Your task to perform on an android device: Go to display settings Image 0: 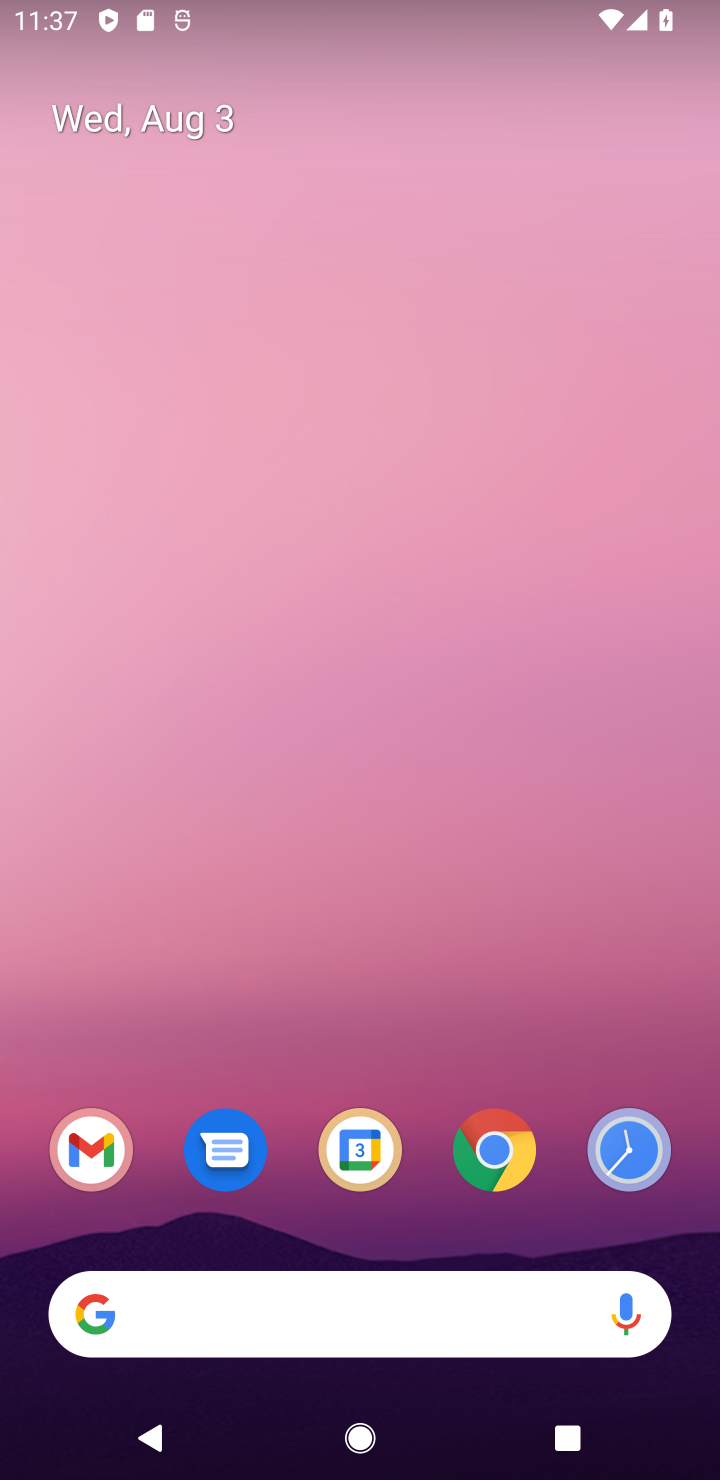
Step 0: press home button
Your task to perform on an android device: Go to display settings Image 1: 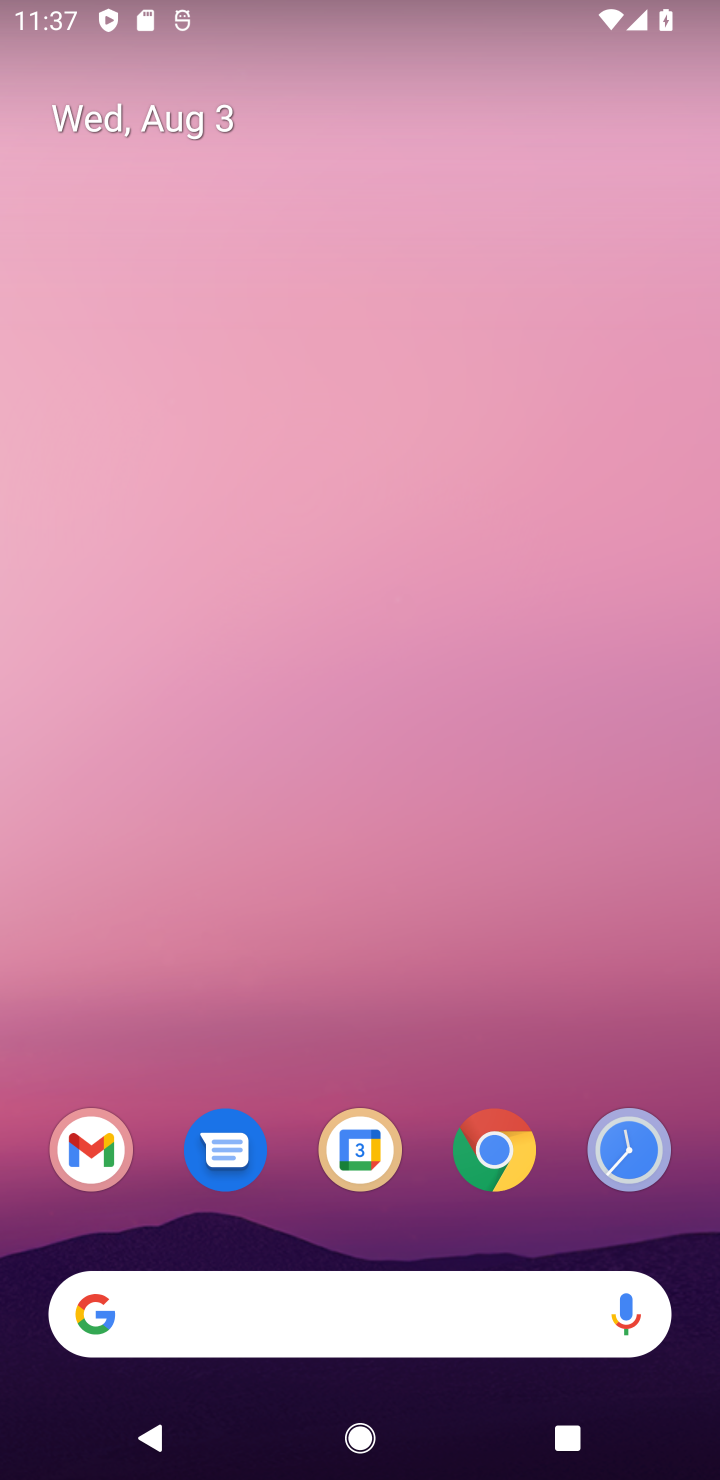
Step 1: drag from (434, 1089) to (419, 251)
Your task to perform on an android device: Go to display settings Image 2: 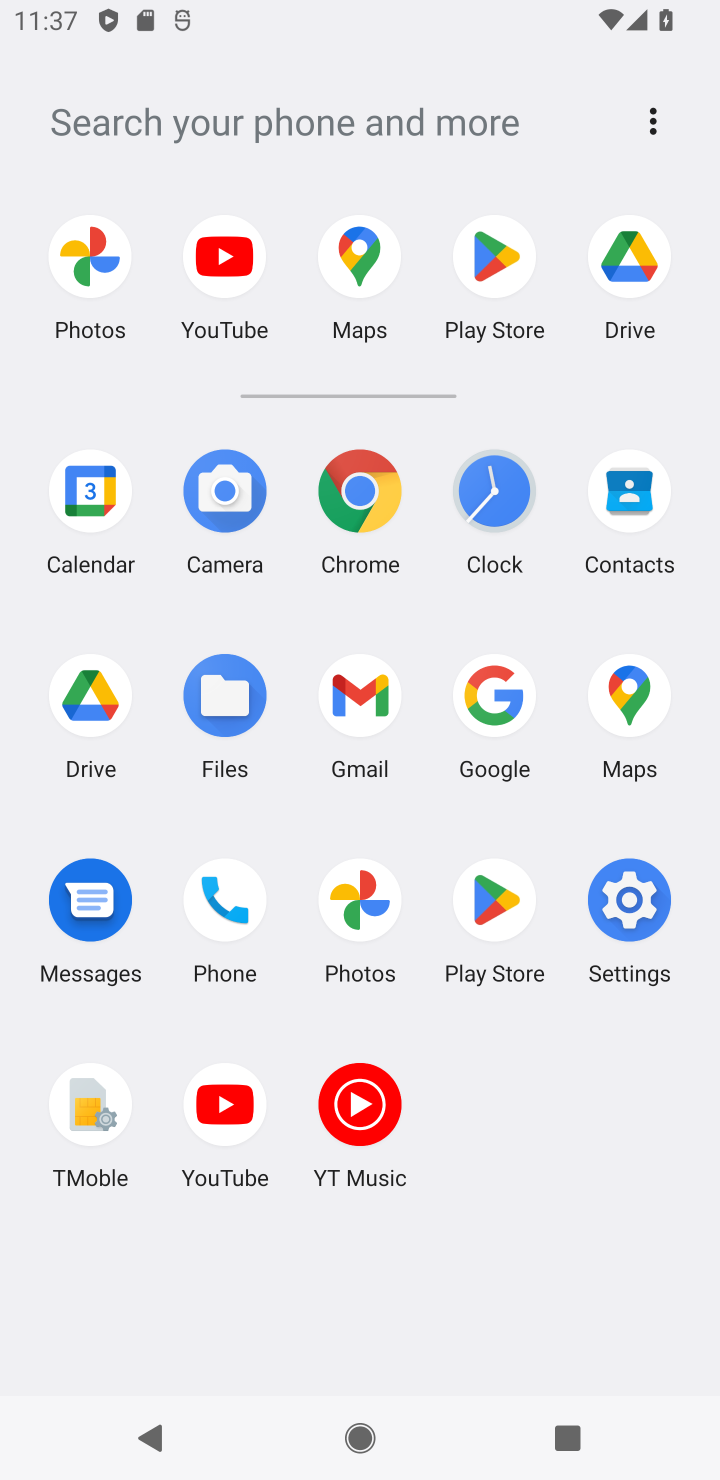
Step 2: click (636, 908)
Your task to perform on an android device: Go to display settings Image 3: 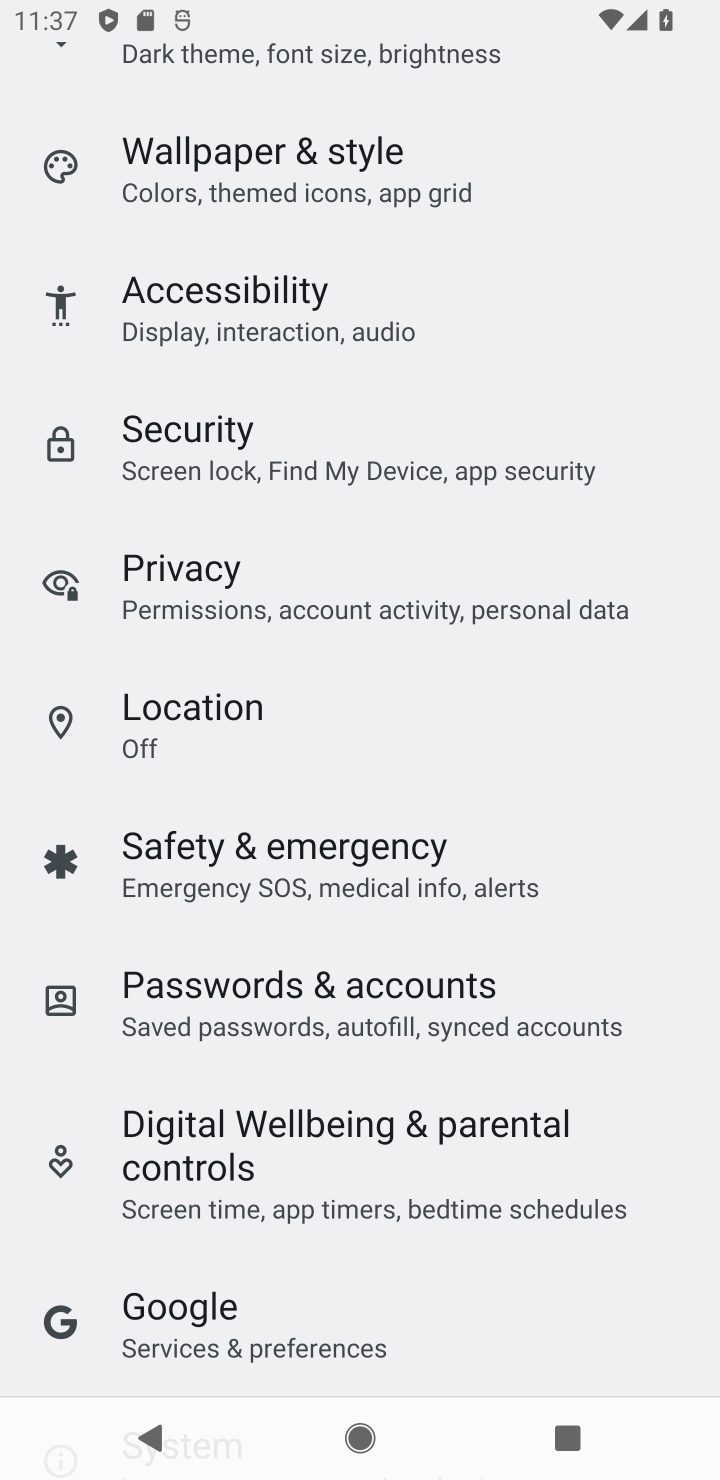
Step 3: drag from (643, 1315) to (650, 1126)
Your task to perform on an android device: Go to display settings Image 4: 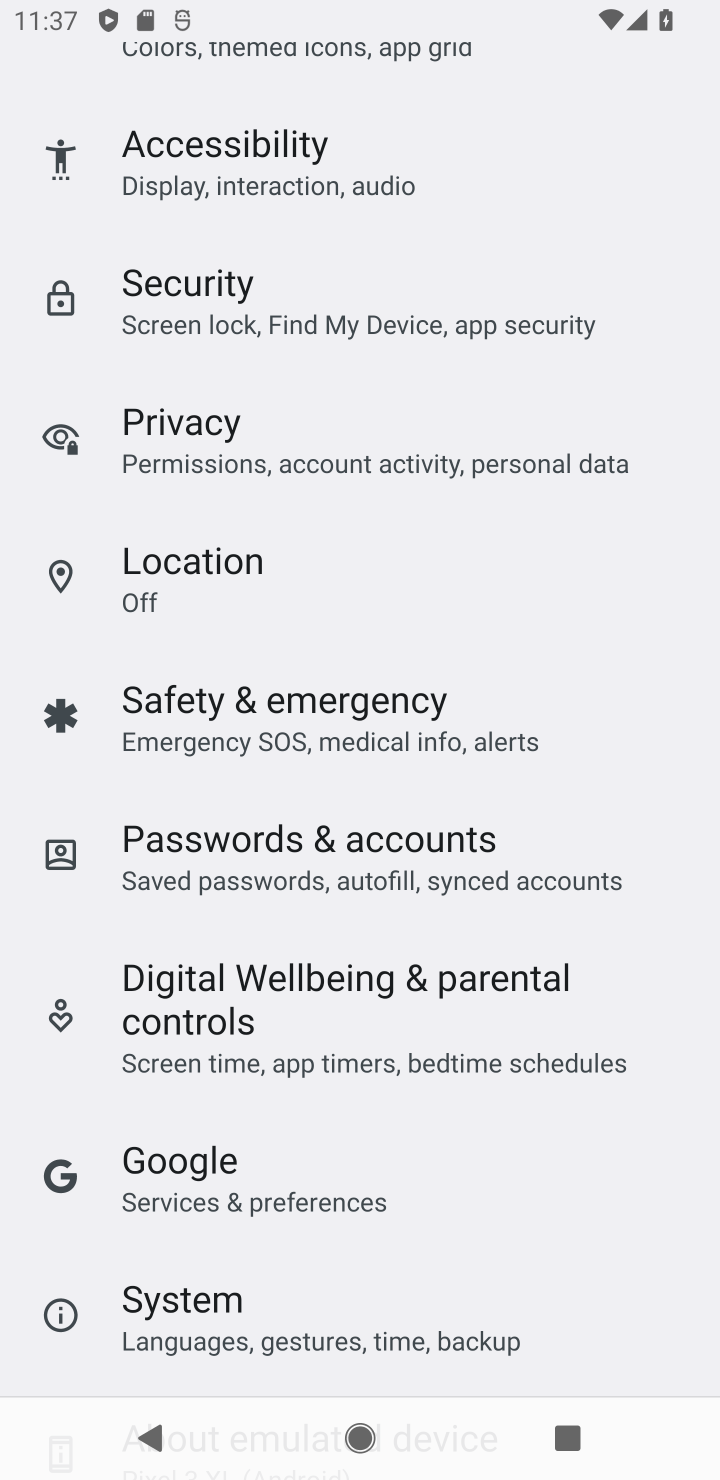
Step 4: drag from (633, 1297) to (629, 1078)
Your task to perform on an android device: Go to display settings Image 5: 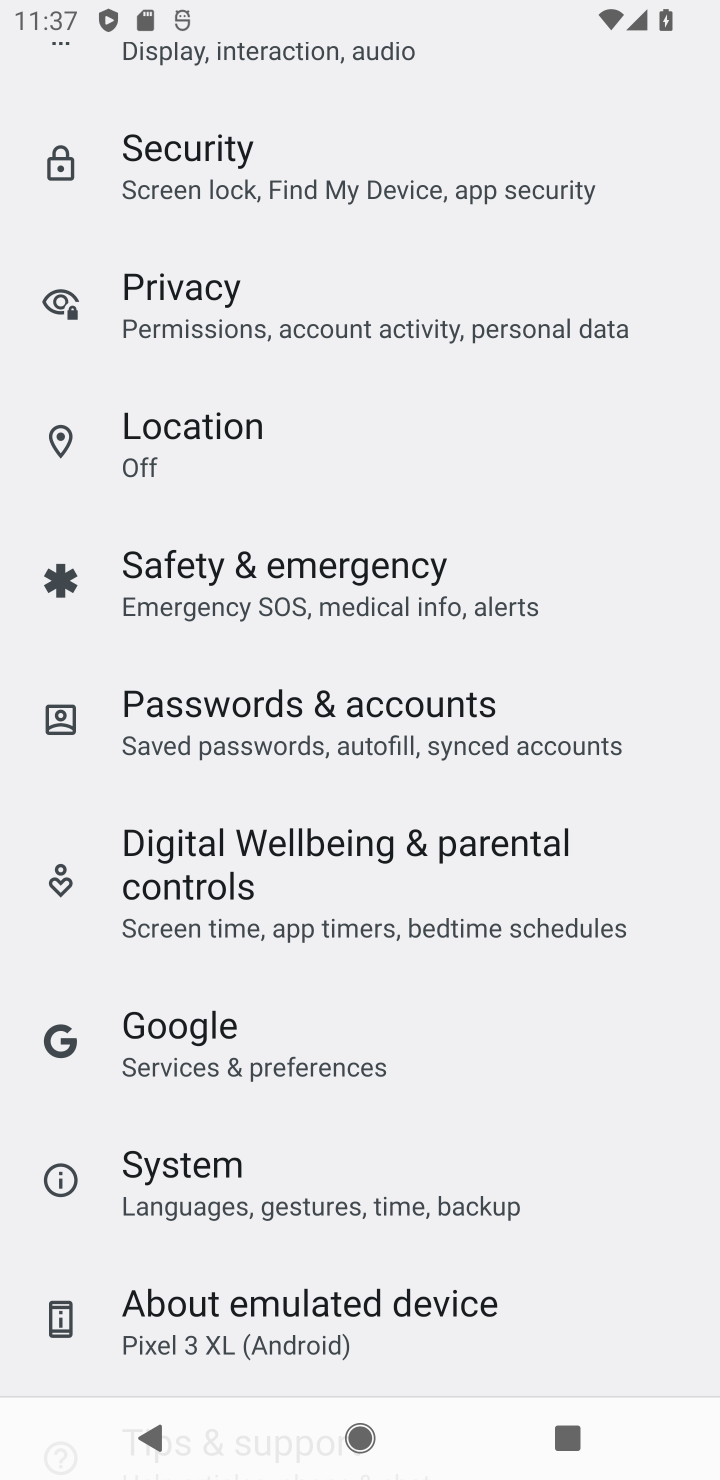
Step 5: drag from (602, 1296) to (603, 993)
Your task to perform on an android device: Go to display settings Image 6: 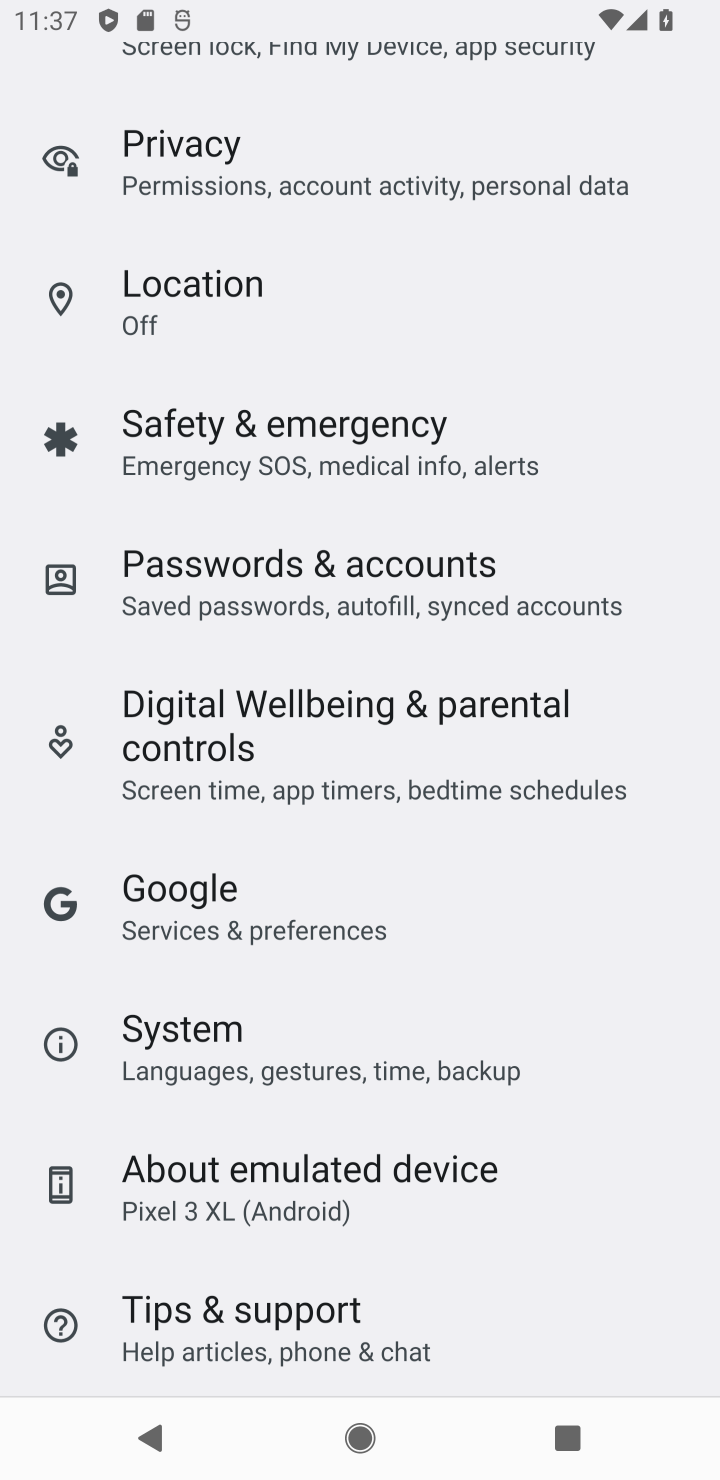
Step 6: drag from (627, 851) to (629, 1015)
Your task to perform on an android device: Go to display settings Image 7: 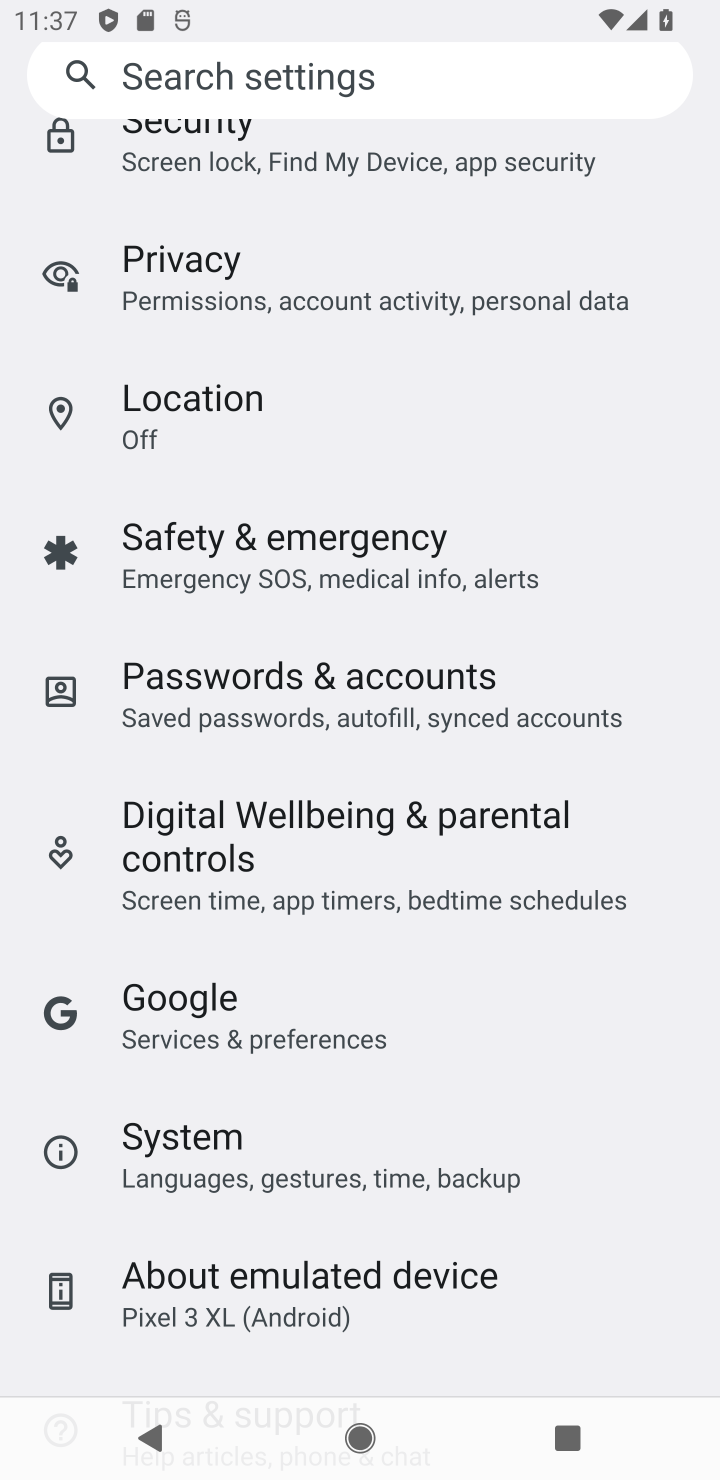
Step 7: drag from (646, 775) to (648, 952)
Your task to perform on an android device: Go to display settings Image 8: 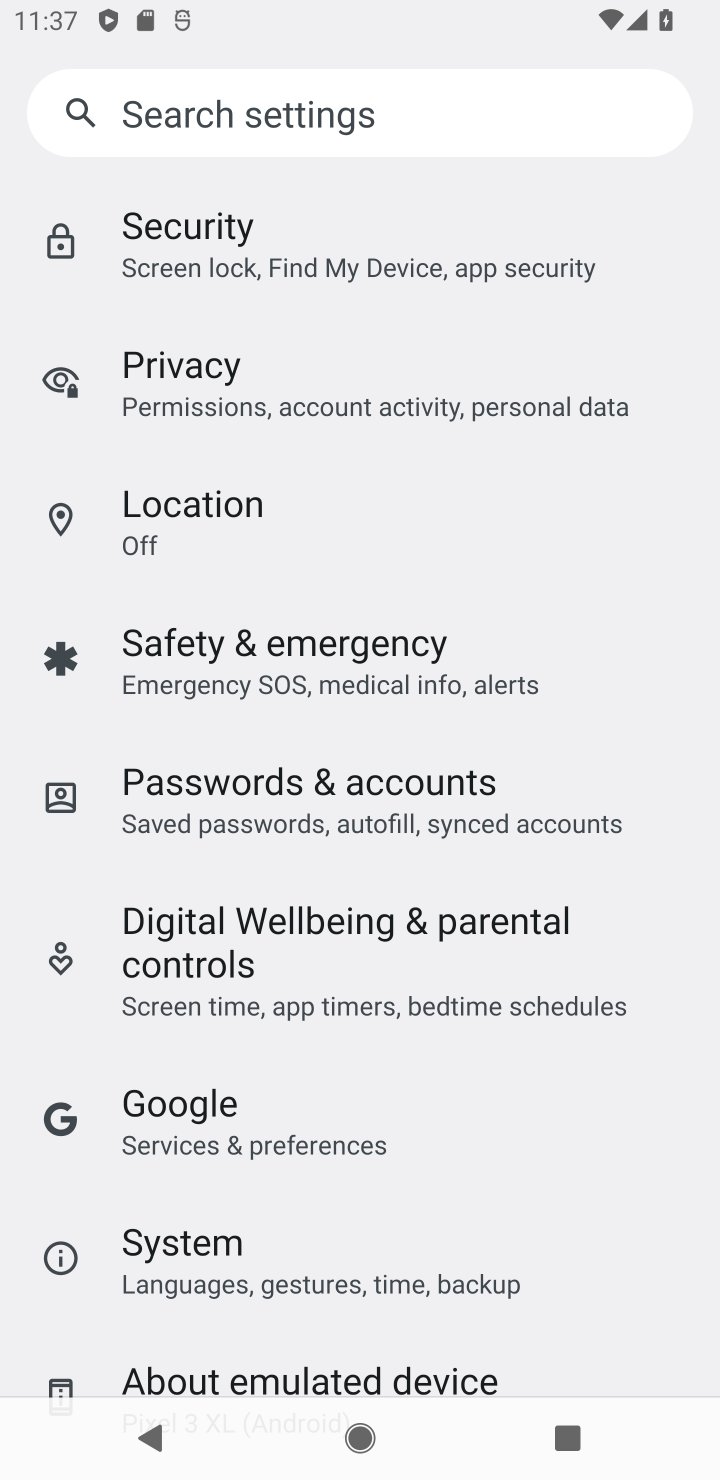
Step 8: drag from (648, 723) to (652, 997)
Your task to perform on an android device: Go to display settings Image 9: 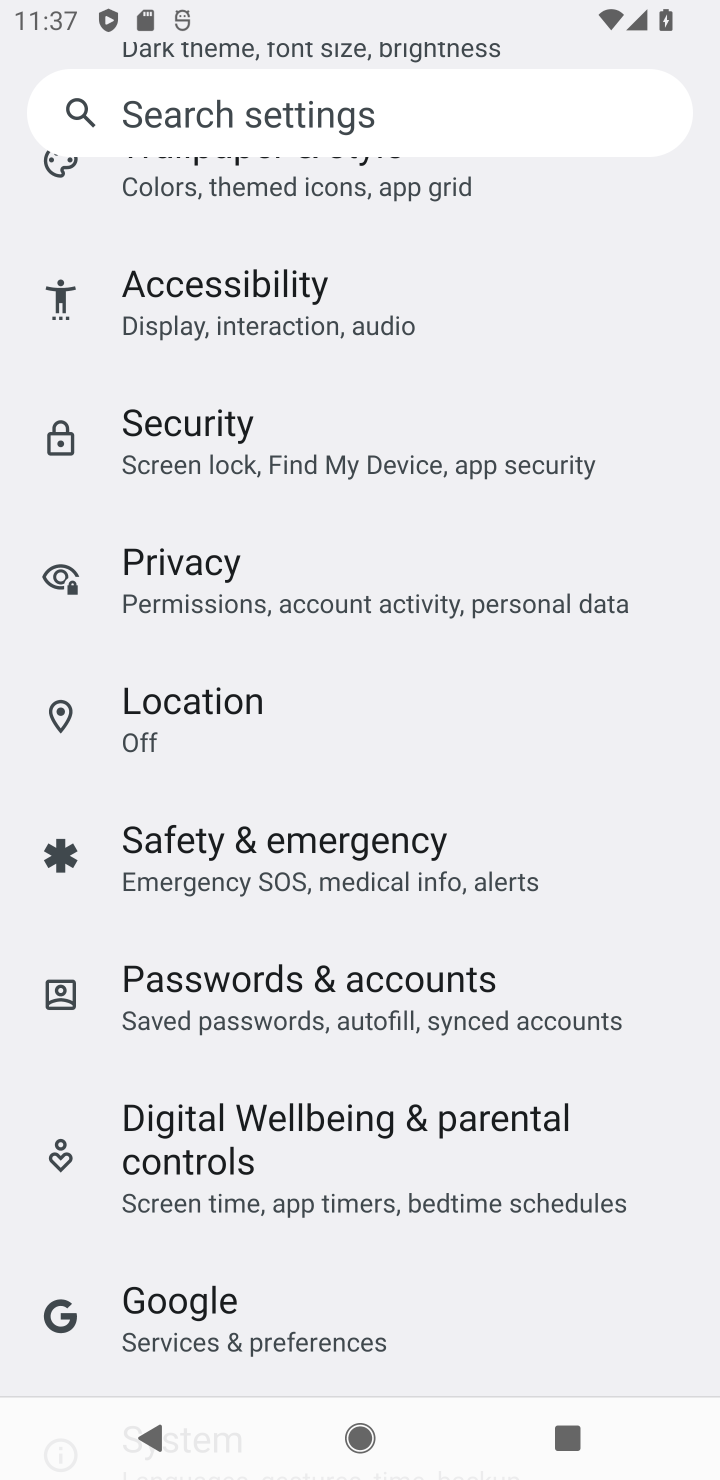
Step 9: drag from (627, 677) to (627, 969)
Your task to perform on an android device: Go to display settings Image 10: 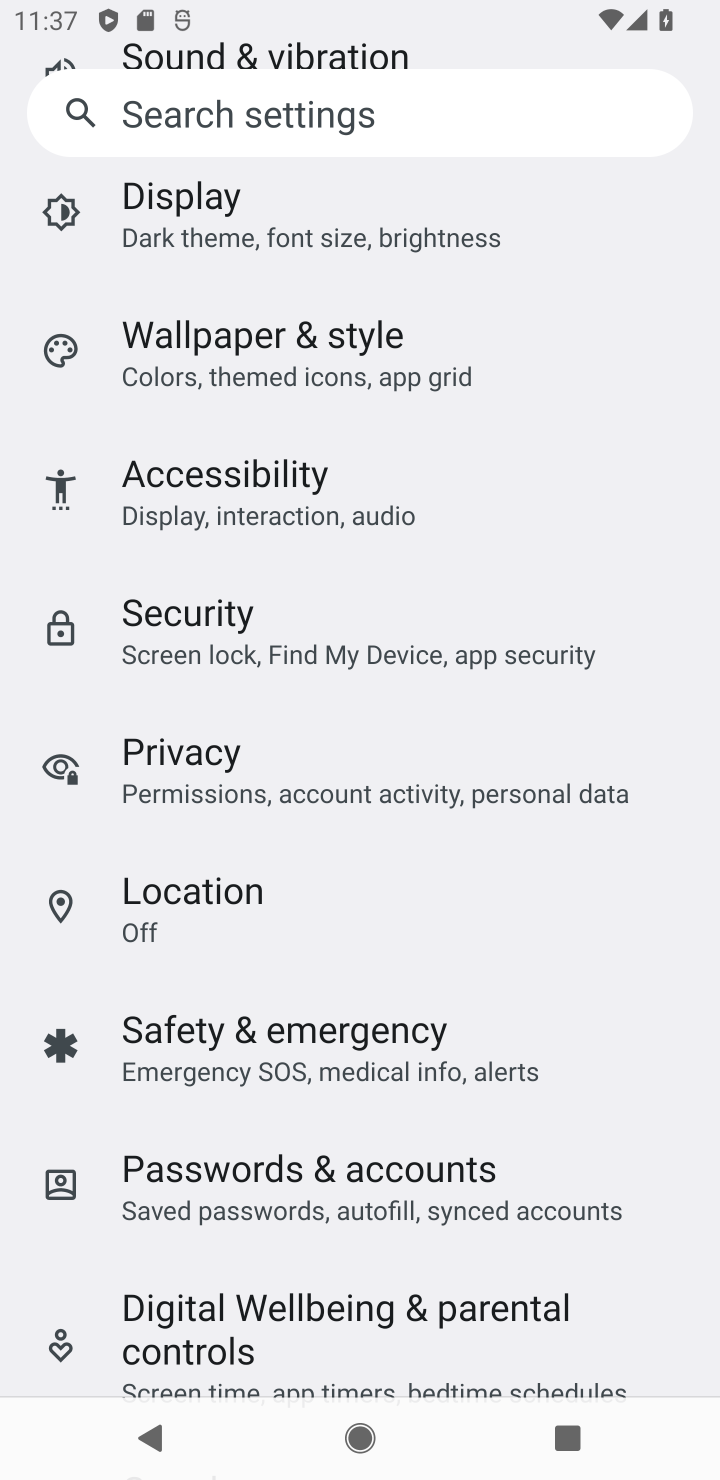
Step 10: drag from (627, 656) to (631, 979)
Your task to perform on an android device: Go to display settings Image 11: 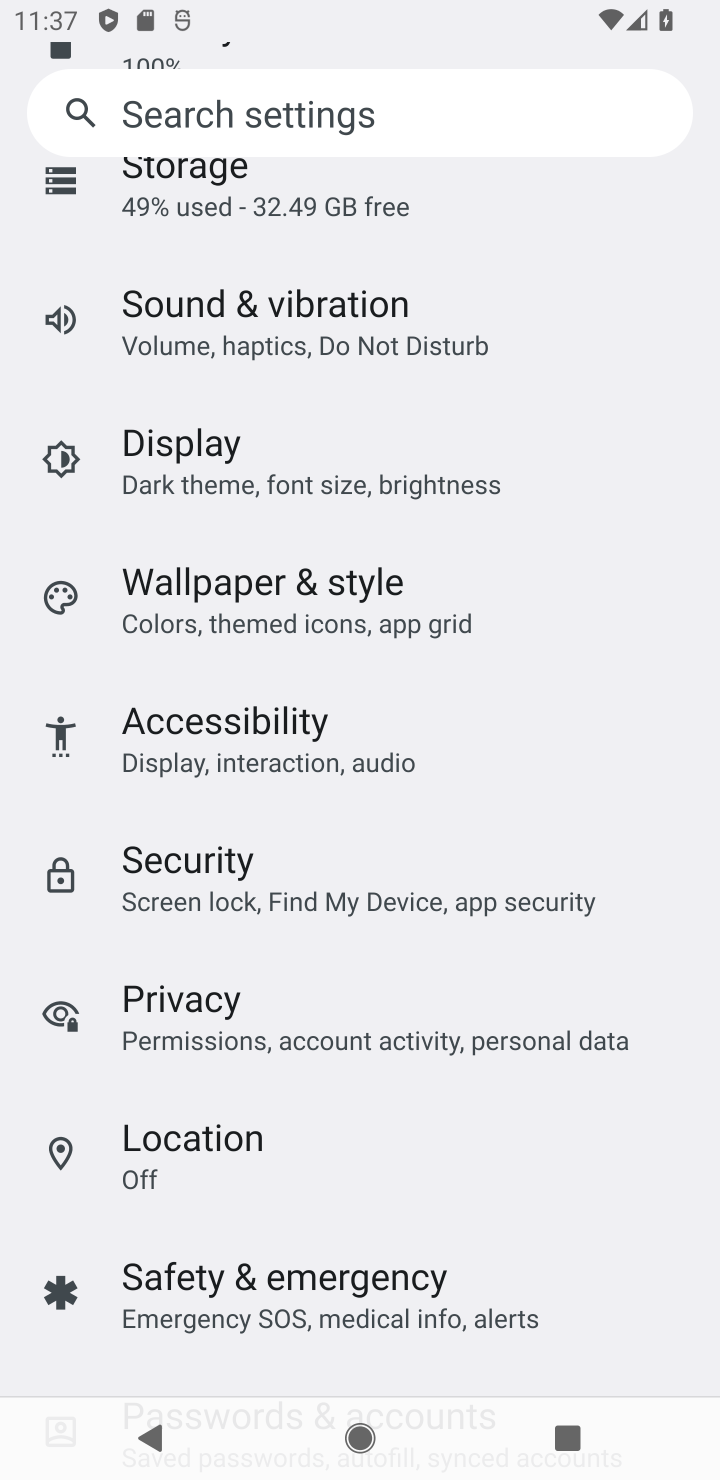
Step 11: drag from (622, 665) to (633, 975)
Your task to perform on an android device: Go to display settings Image 12: 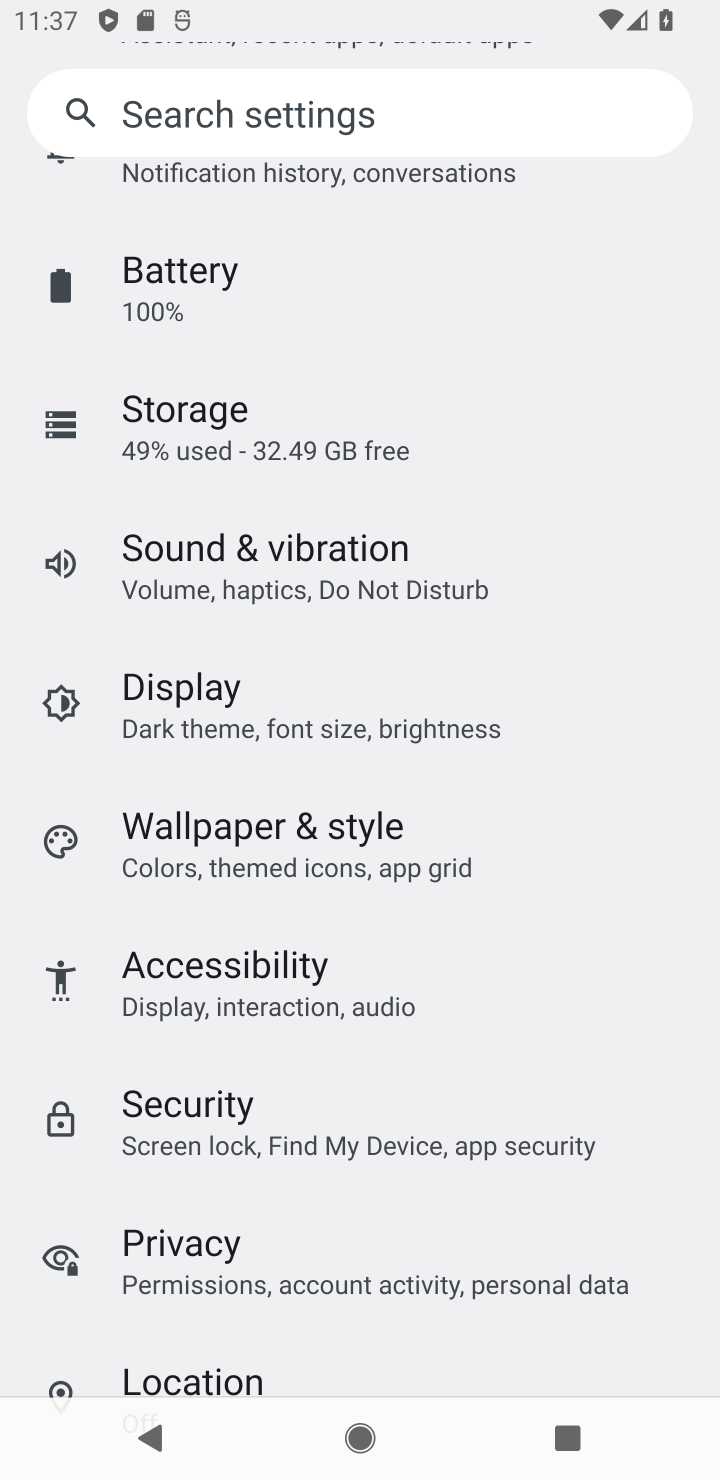
Step 12: drag from (627, 658) to (627, 1004)
Your task to perform on an android device: Go to display settings Image 13: 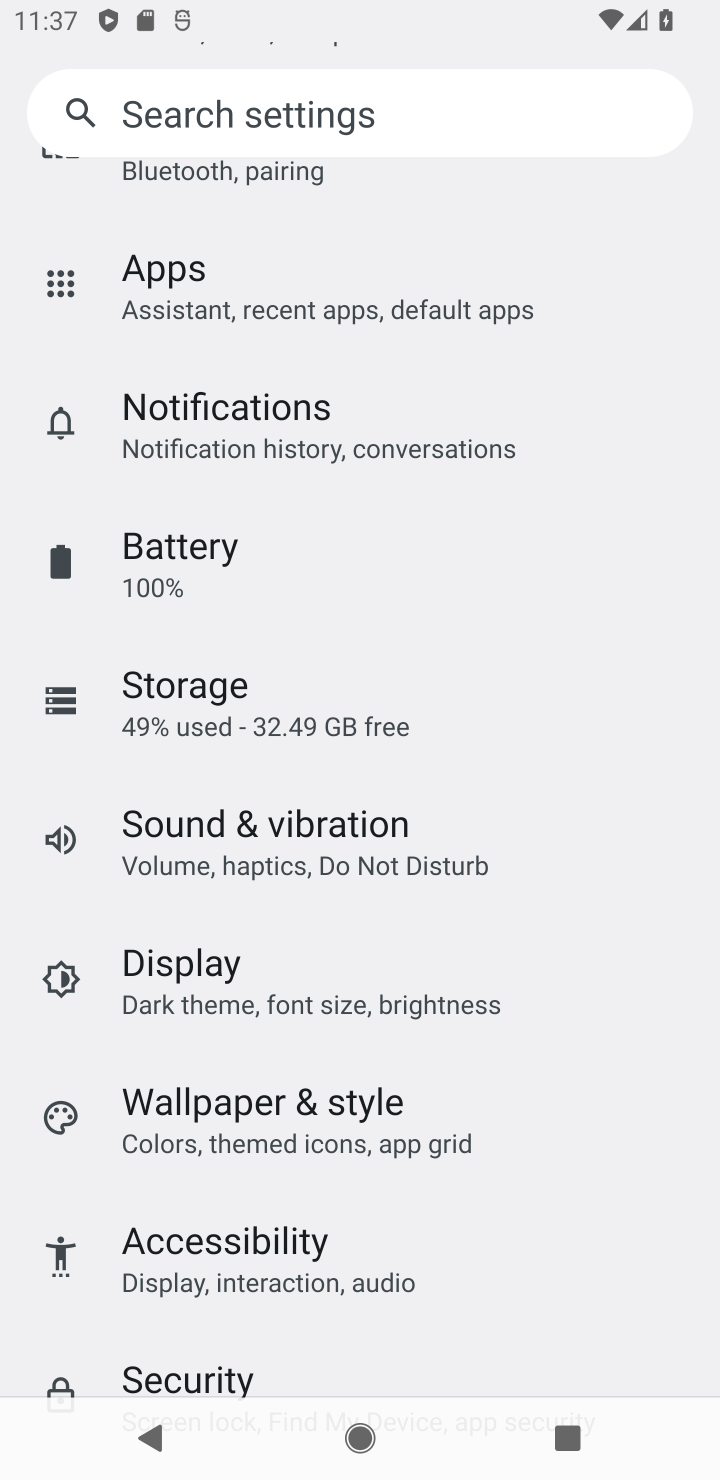
Step 13: click (493, 978)
Your task to perform on an android device: Go to display settings Image 14: 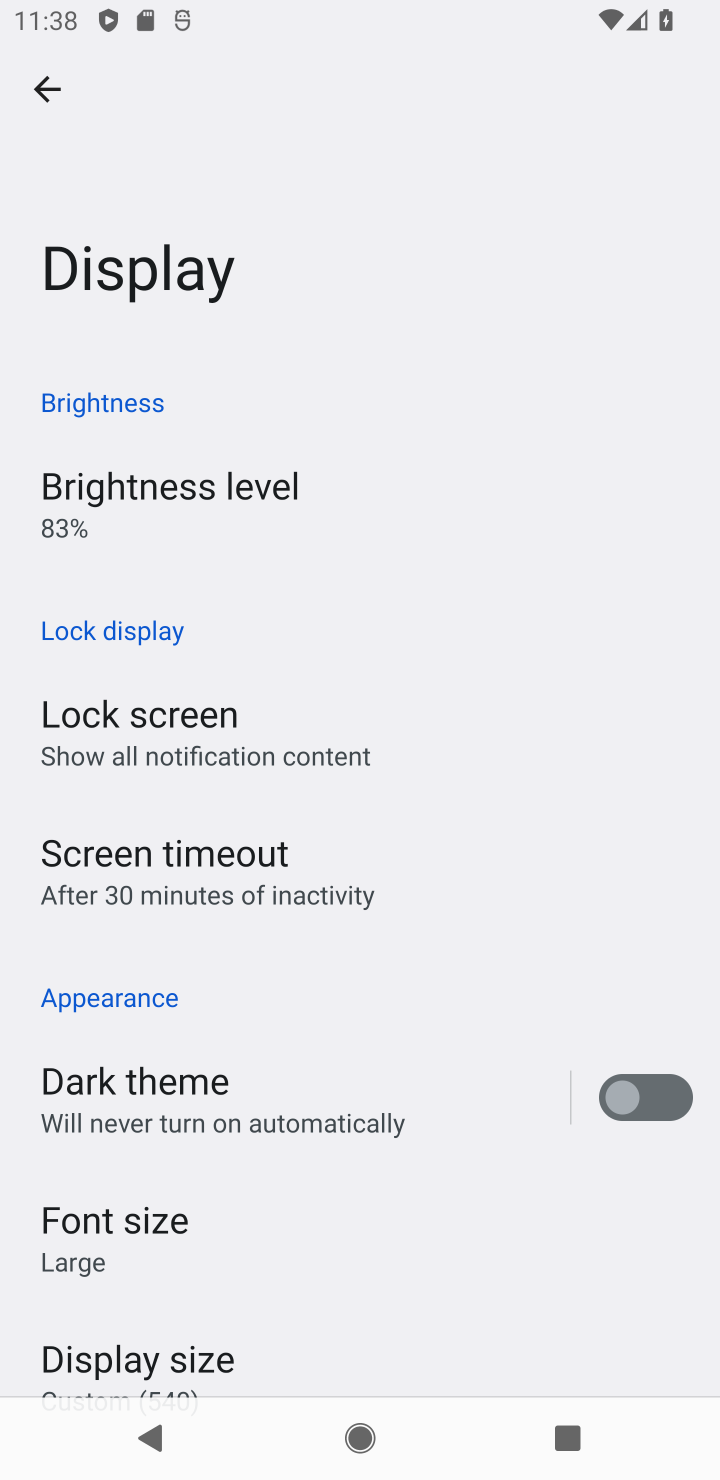
Step 14: task complete